Your task to perform on an android device: turn off airplane mode Image 0: 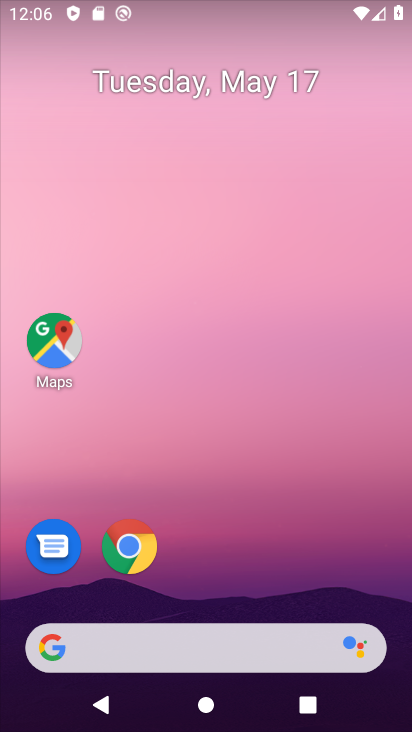
Step 0: drag from (240, 492) to (282, 21)
Your task to perform on an android device: turn off airplane mode Image 1: 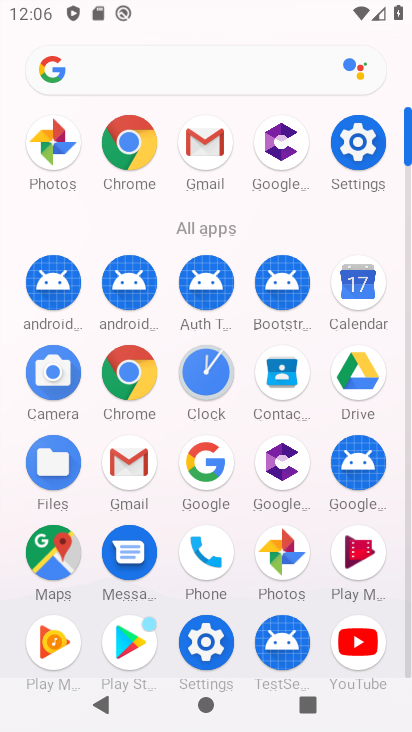
Step 1: click (364, 157)
Your task to perform on an android device: turn off airplane mode Image 2: 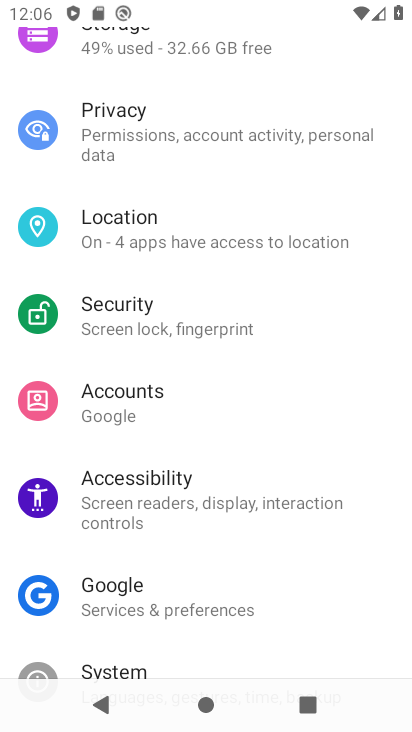
Step 2: drag from (272, 135) to (264, 507)
Your task to perform on an android device: turn off airplane mode Image 3: 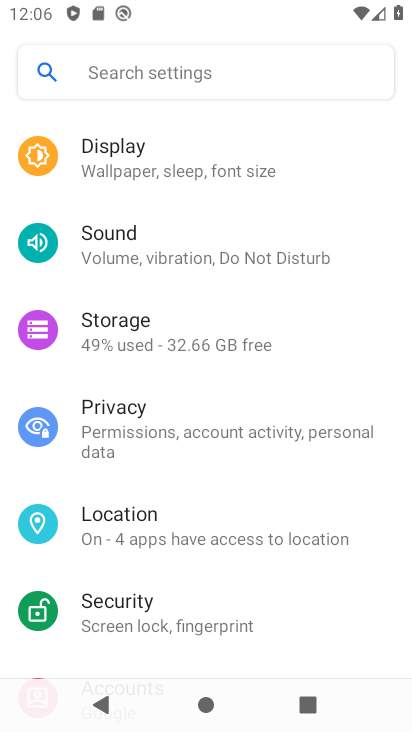
Step 3: drag from (234, 315) to (257, 577)
Your task to perform on an android device: turn off airplane mode Image 4: 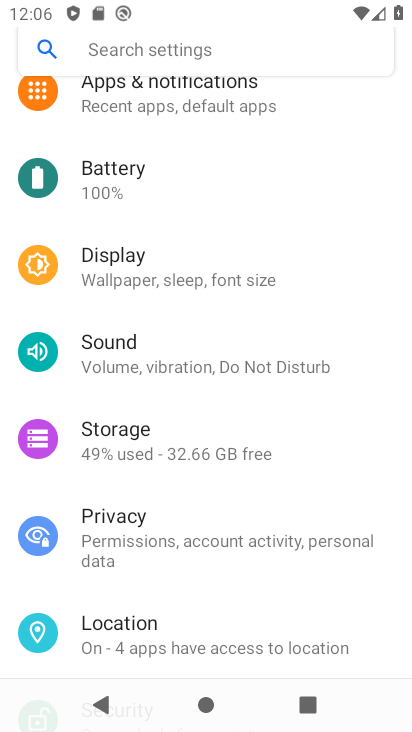
Step 4: drag from (194, 170) to (205, 581)
Your task to perform on an android device: turn off airplane mode Image 5: 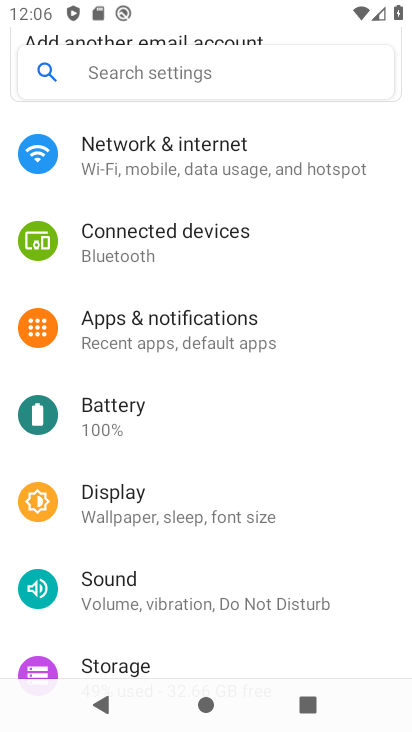
Step 5: drag from (190, 191) to (167, 562)
Your task to perform on an android device: turn off airplane mode Image 6: 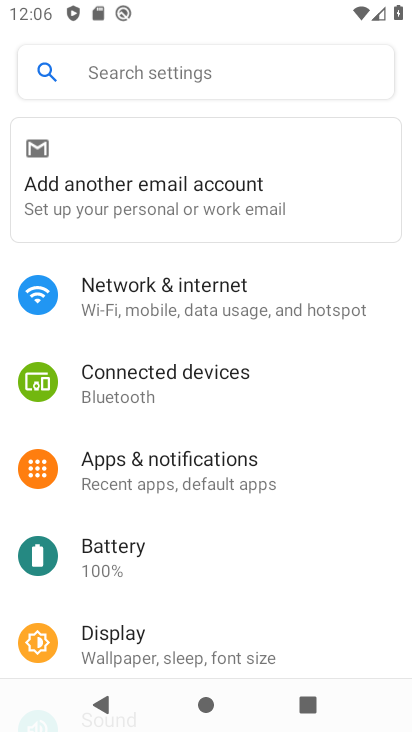
Step 6: click (144, 301)
Your task to perform on an android device: turn off airplane mode Image 7: 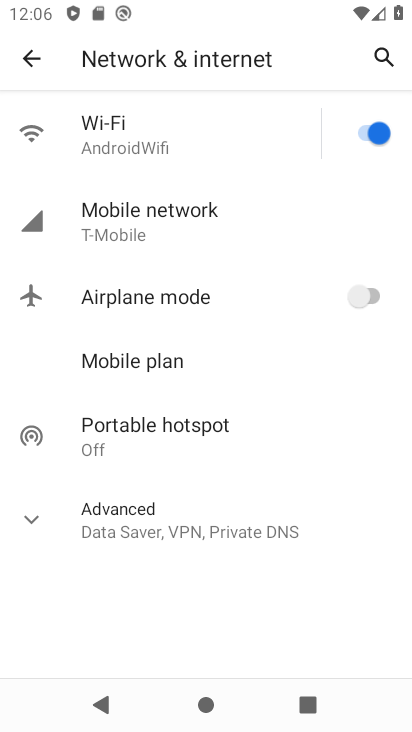
Step 7: click (142, 302)
Your task to perform on an android device: turn off airplane mode Image 8: 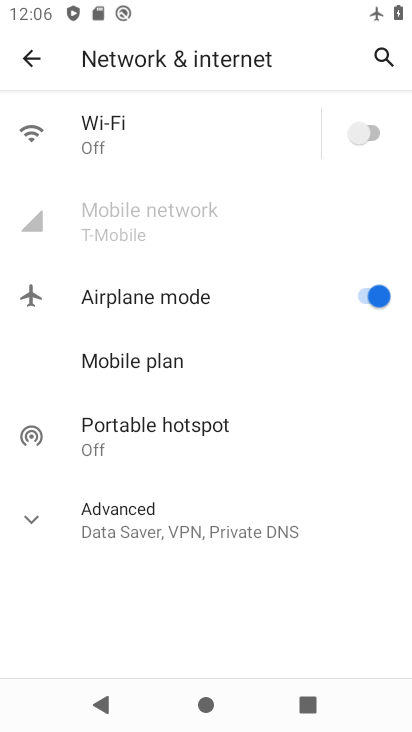
Step 8: click (142, 302)
Your task to perform on an android device: turn off airplane mode Image 9: 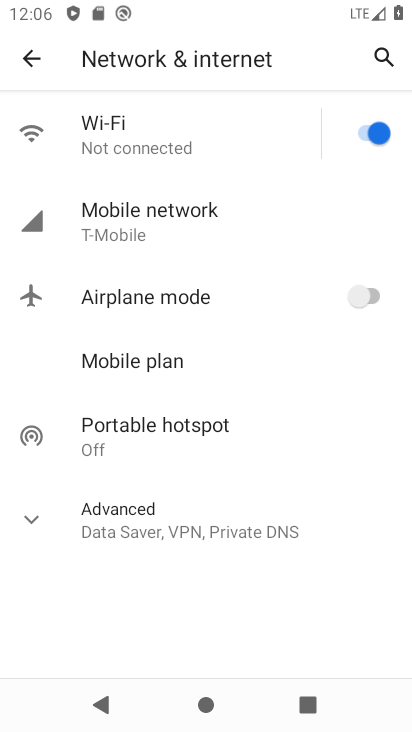
Step 9: task complete